Your task to perform on an android device: add a contact Image 0: 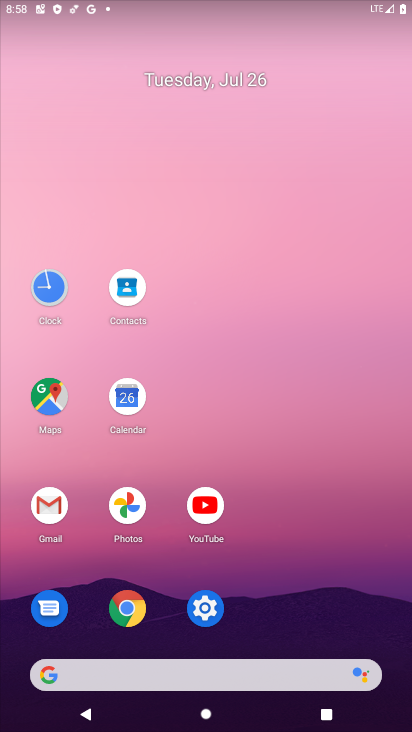
Step 0: click (122, 286)
Your task to perform on an android device: add a contact Image 1: 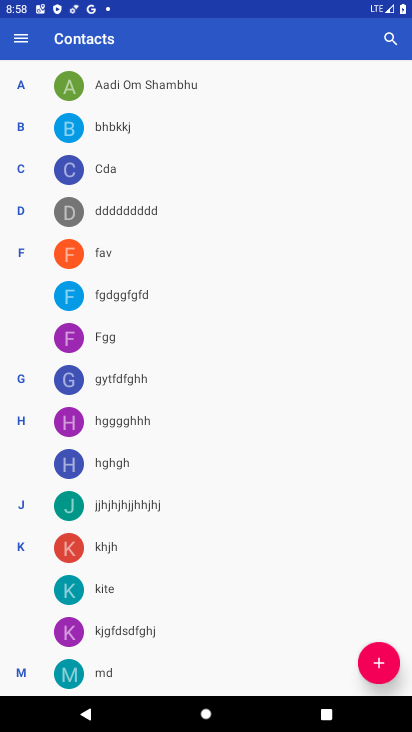
Step 1: click (381, 664)
Your task to perform on an android device: add a contact Image 2: 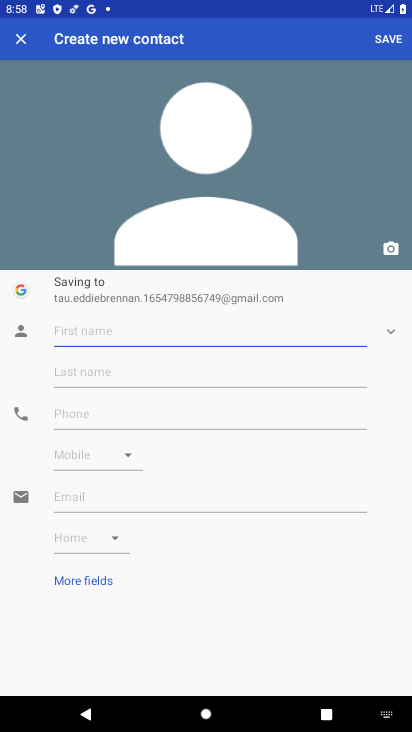
Step 2: type "lllll"
Your task to perform on an android device: add a contact Image 3: 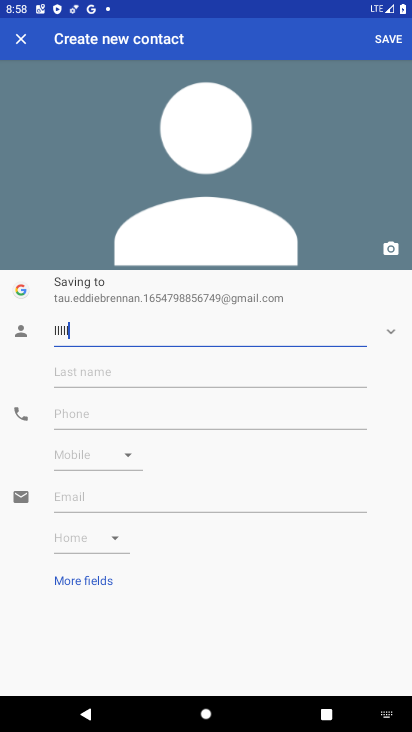
Step 3: click (132, 417)
Your task to perform on an android device: add a contact Image 4: 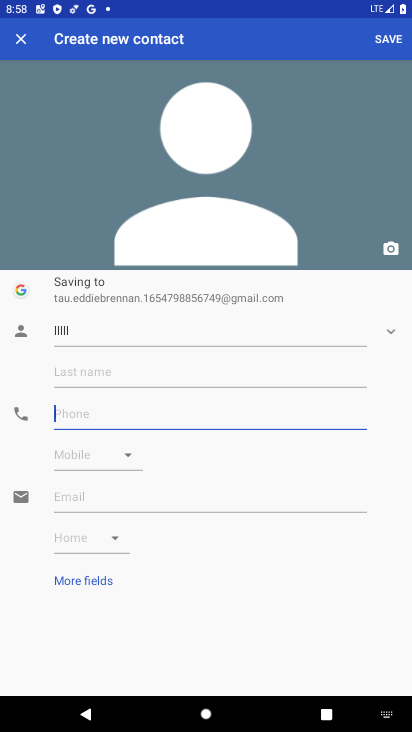
Step 4: type "0009898"
Your task to perform on an android device: add a contact Image 5: 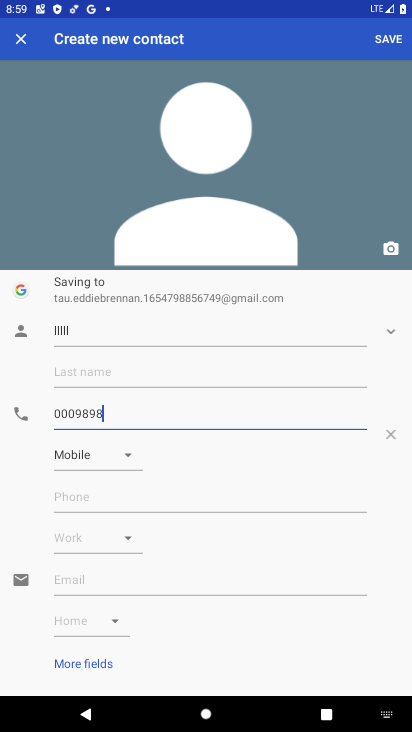
Step 5: click (389, 38)
Your task to perform on an android device: add a contact Image 6: 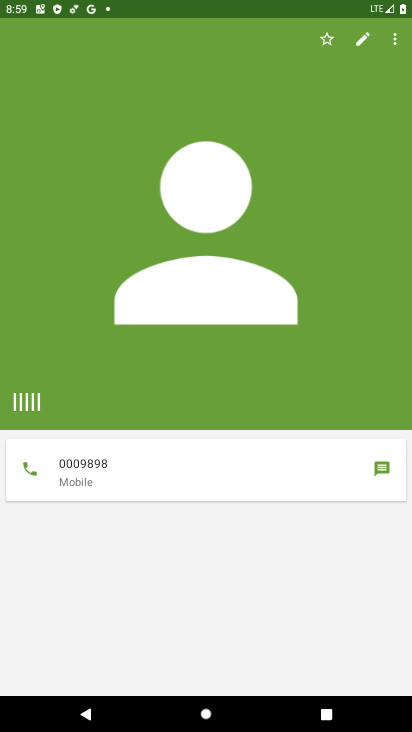
Step 6: task complete